Your task to perform on an android device: toggle wifi Image 0: 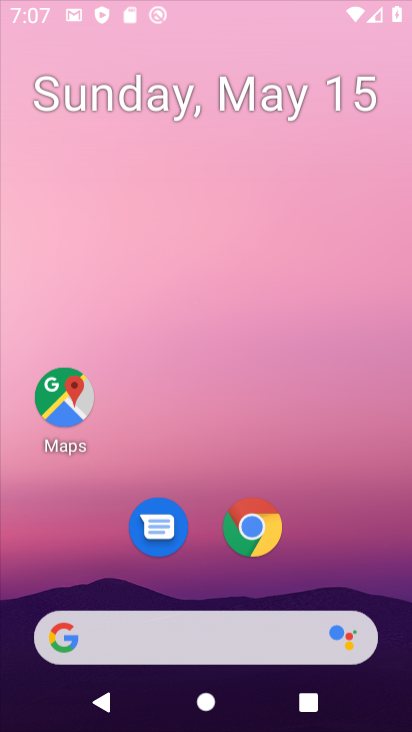
Step 0: click (361, 0)
Your task to perform on an android device: toggle wifi Image 1: 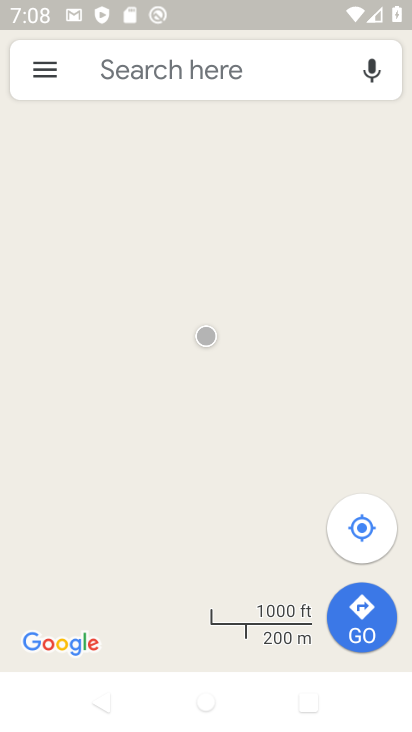
Step 1: press home button
Your task to perform on an android device: toggle wifi Image 2: 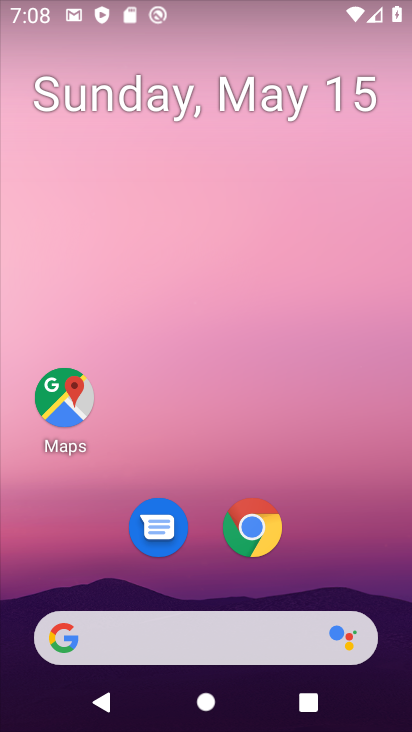
Step 2: drag from (317, 564) to (219, 14)
Your task to perform on an android device: toggle wifi Image 3: 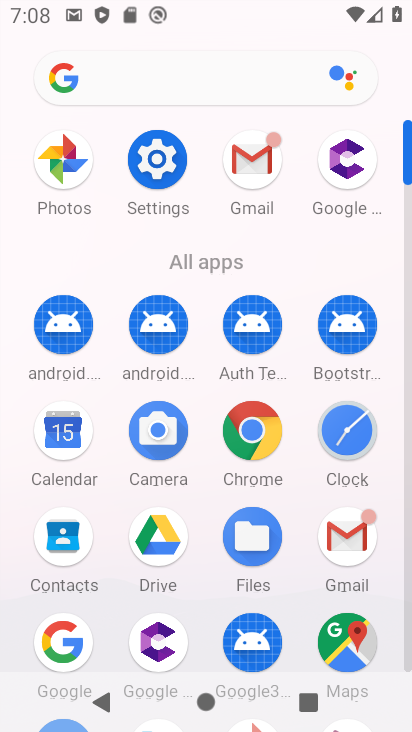
Step 3: click (160, 177)
Your task to perform on an android device: toggle wifi Image 4: 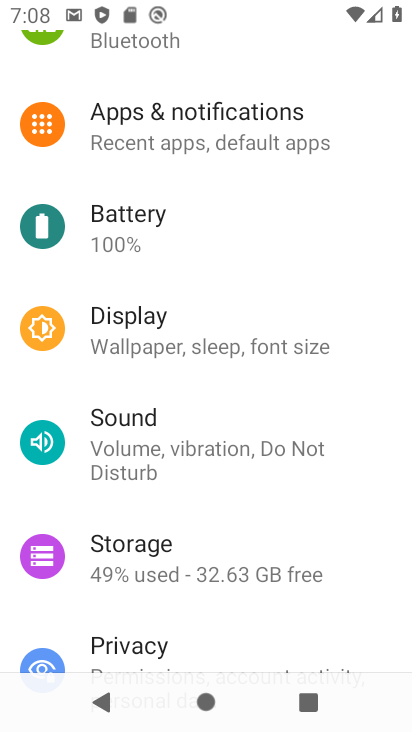
Step 4: drag from (160, 177) to (270, 535)
Your task to perform on an android device: toggle wifi Image 5: 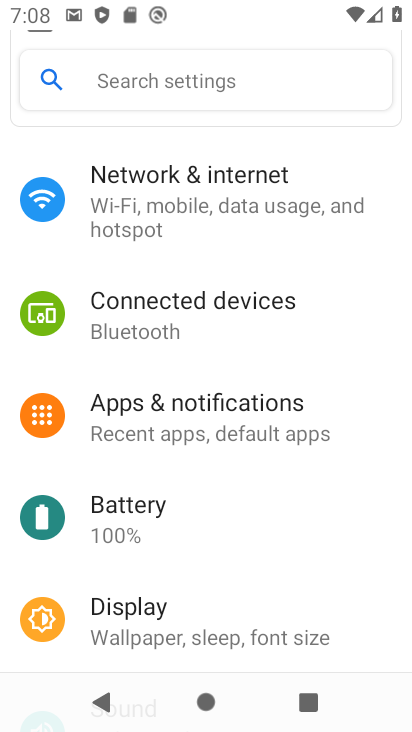
Step 5: drag from (240, 210) to (268, 609)
Your task to perform on an android device: toggle wifi Image 6: 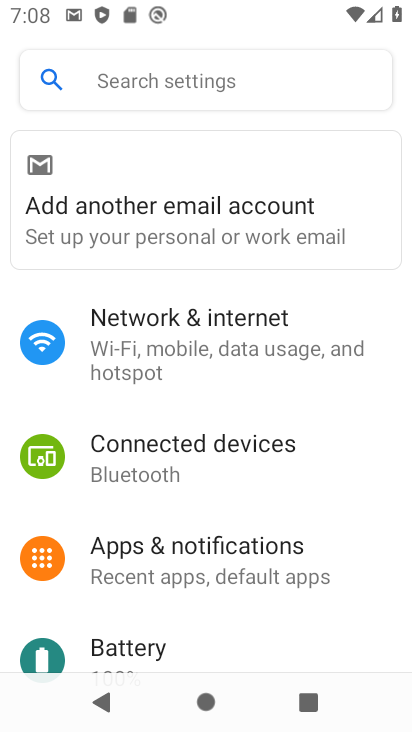
Step 6: click (272, 316)
Your task to perform on an android device: toggle wifi Image 7: 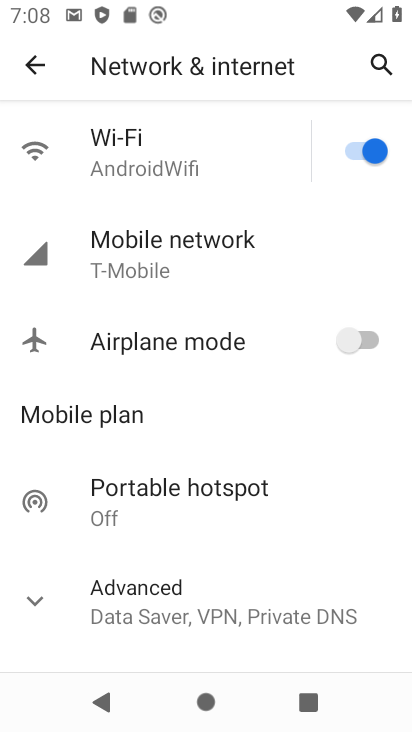
Step 7: click (344, 141)
Your task to perform on an android device: toggle wifi Image 8: 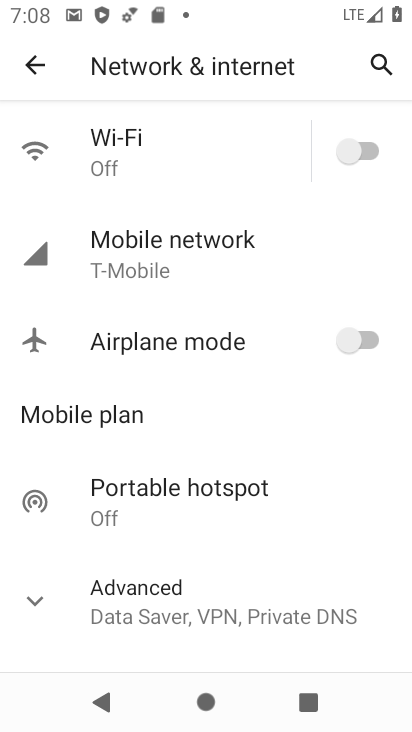
Step 8: task complete